Your task to perform on an android device: all mails in gmail Image 0: 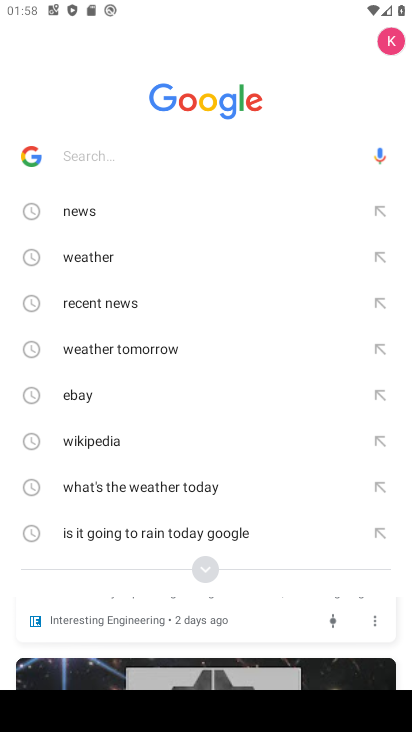
Step 0: press home button
Your task to perform on an android device: all mails in gmail Image 1: 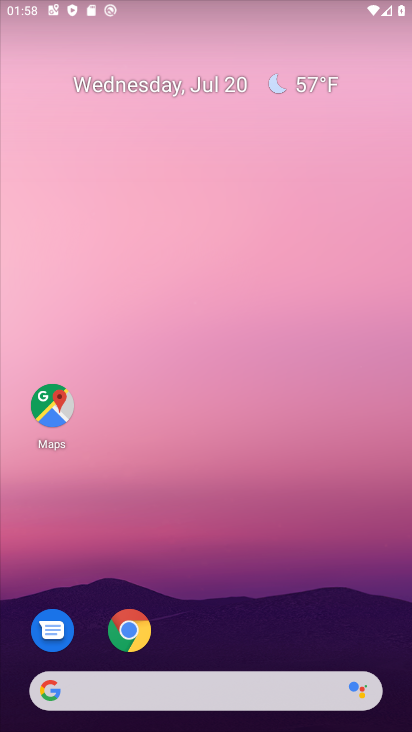
Step 1: drag from (320, 604) to (298, 5)
Your task to perform on an android device: all mails in gmail Image 2: 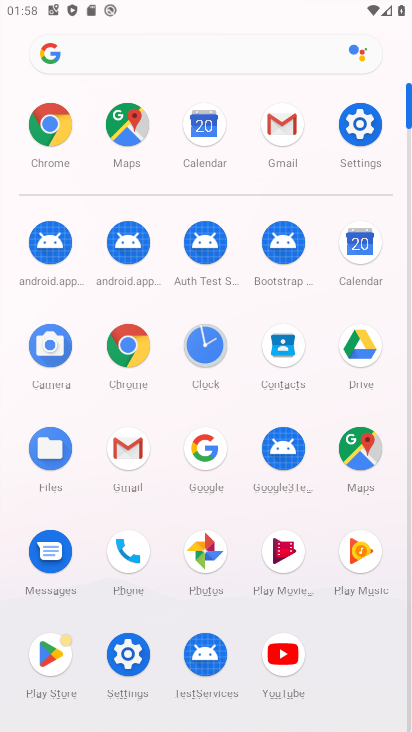
Step 2: click (288, 127)
Your task to perform on an android device: all mails in gmail Image 3: 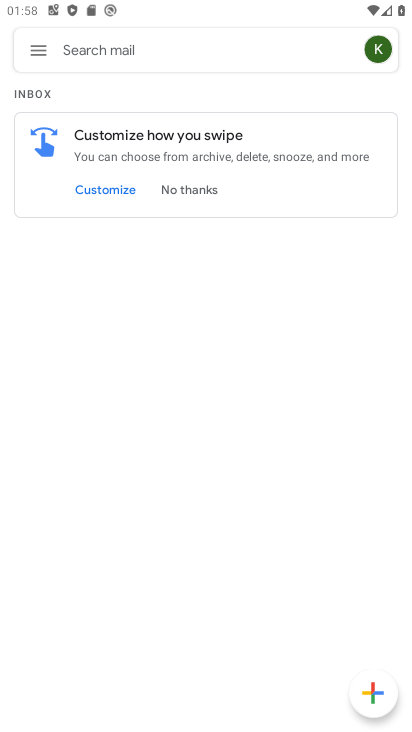
Step 3: click (46, 53)
Your task to perform on an android device: all mails in gmail Image 4: 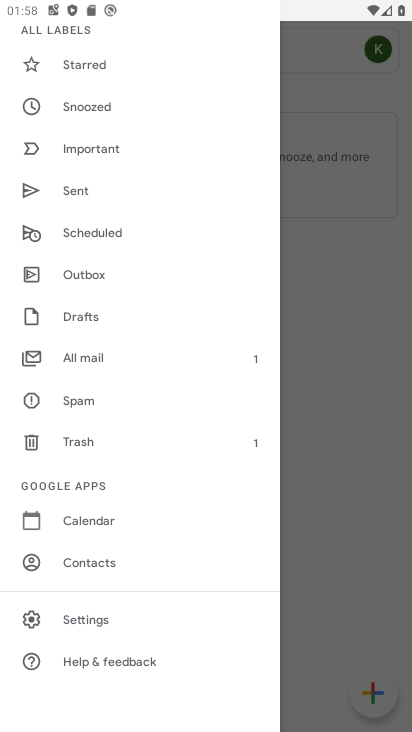
Step 4: click (98, 359)
Your task to perform on an android device: all mails in gmail Image 5: 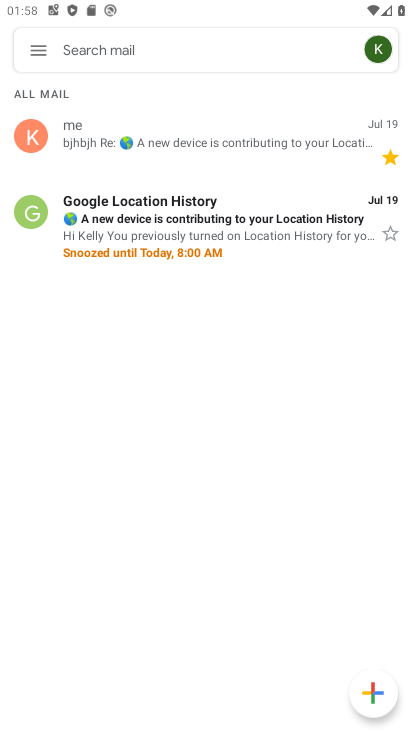
Step 5: task complete